Your task to perform on an android device: Open my contact list Image 0: 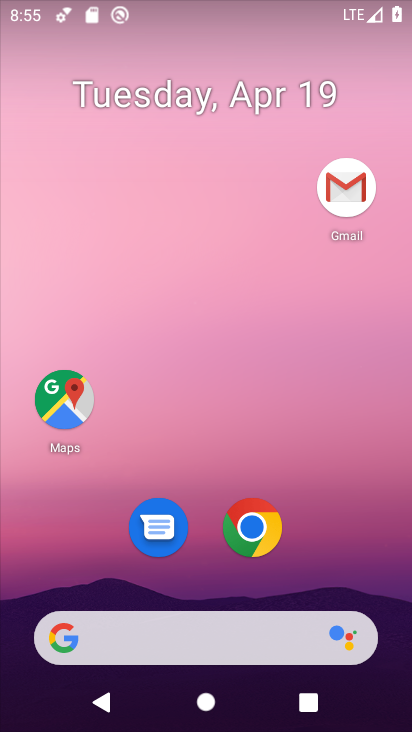
Step 0: drag from (379, 532) to (337, 83)
Your task to perform on an android device: Open my contact list Image 1: 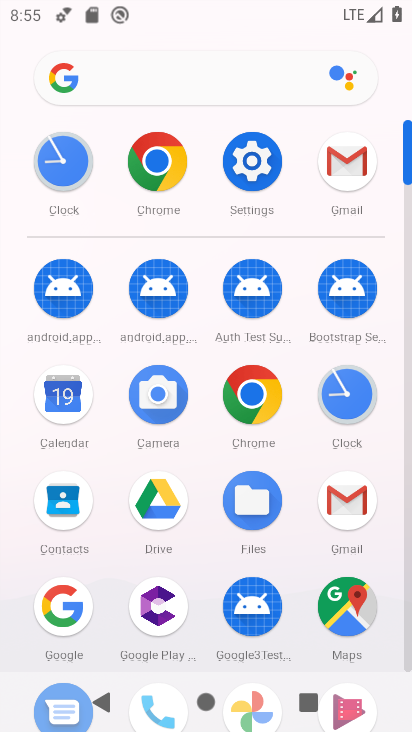
Step 1: click (46, 504)
Your task to perform on an android device: Open my contact list Image 2: 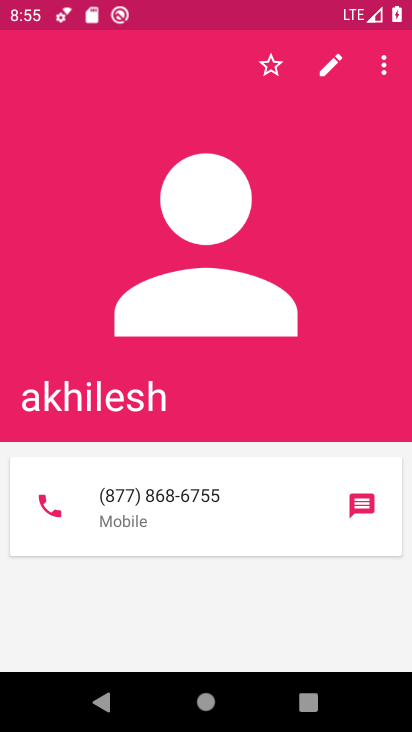
Step 2: task complete